Your task to perform on an android device: Go to eBay Image 0: 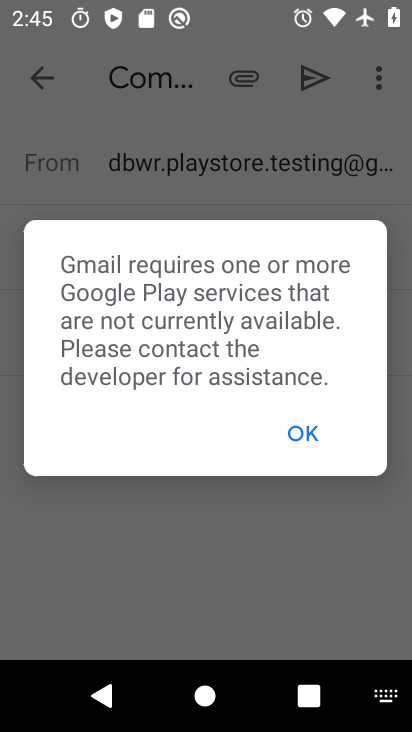
Step 0: press home button
Your task to perform on an android device: Go to eBay Image 1: 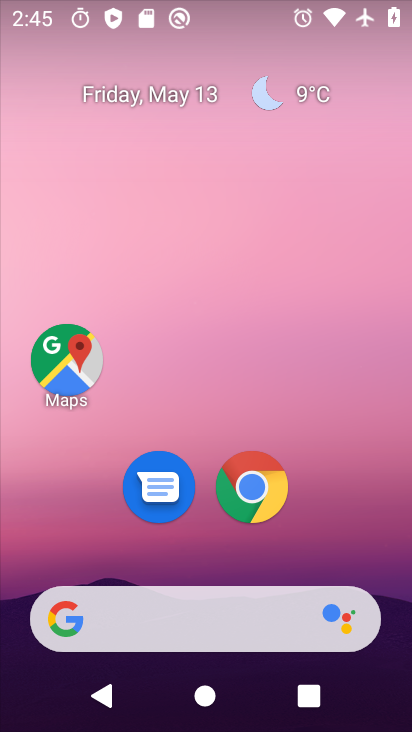
Step 1: drag from (196, 540) to (184, 140)
Your task to perform on an android device: Go to eBay Image 2: 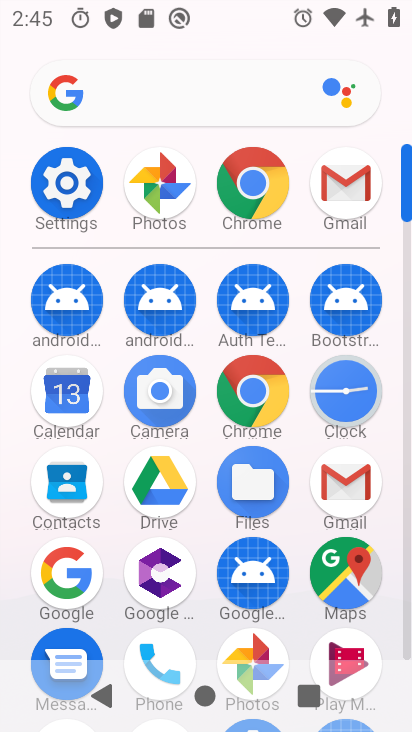
Step 2: click (54, 579)
Your task to perform on an android device: Go to eBay Image 3: 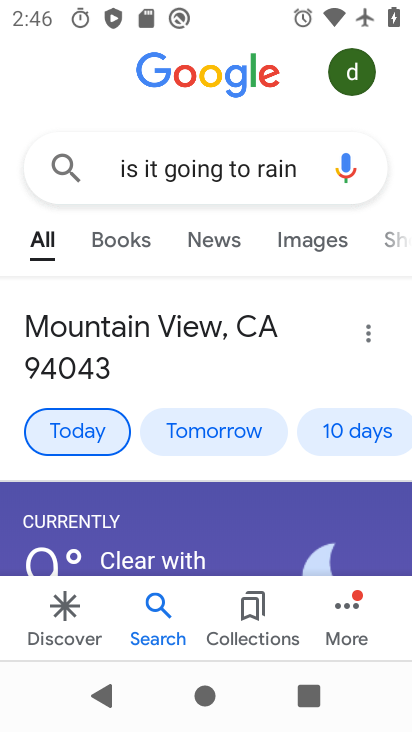
Step 3: click (248, 160)
Your task to perform on an android device: Go to eBay Image 4: 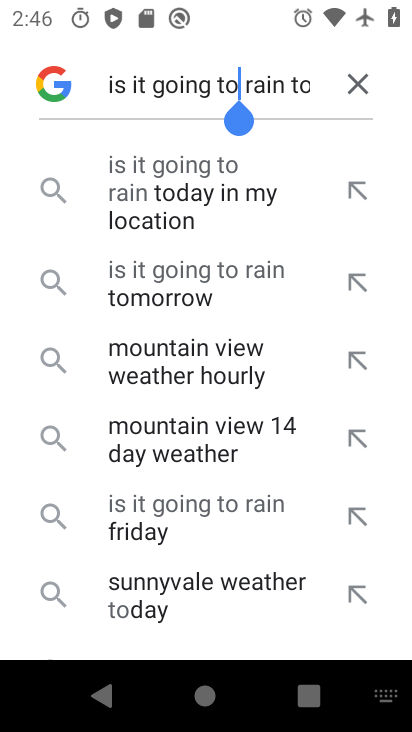
Step 4: click (350, 86)
Your task to perform on an android device: Go to eBay Image 5: 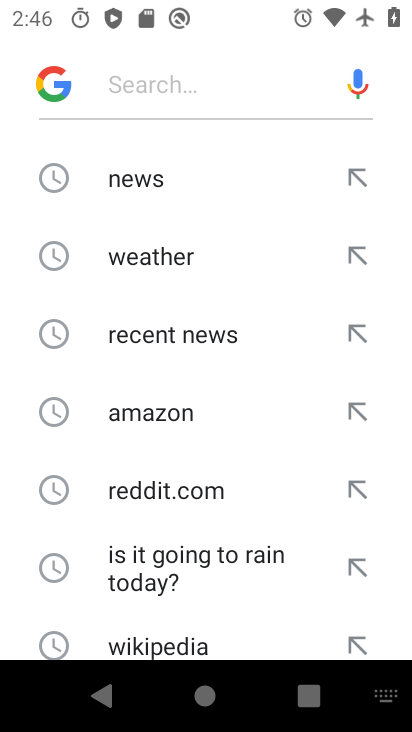
Step 5: drag from (194, 540) to (198, 226)
Your task to perform on an android device: Go to eBay Image 6: 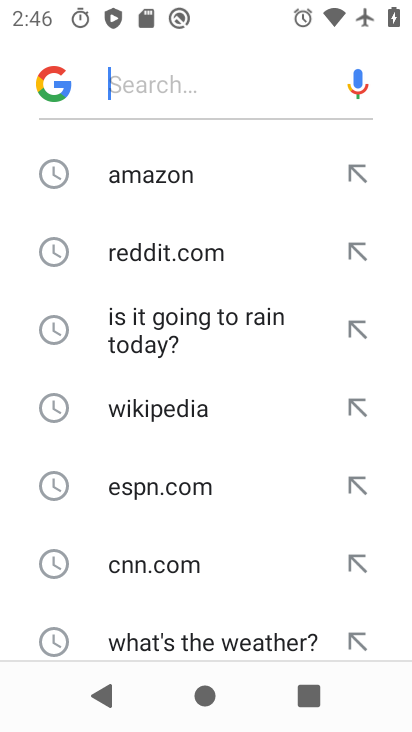
Step 6: drag from (227, 612) to (228, 249)
Your task to perform on an android device: Go to eBay Image 7: 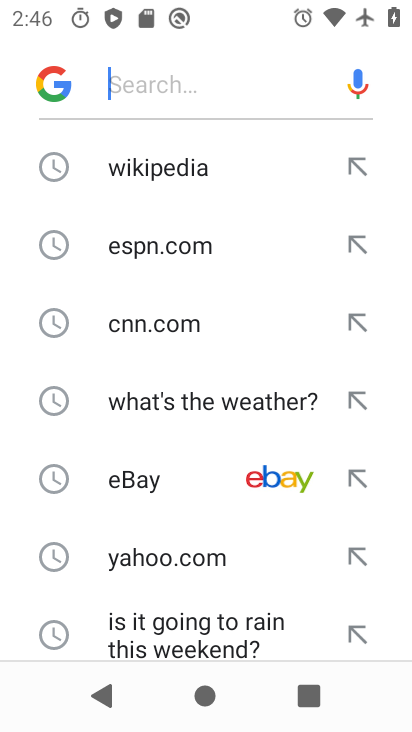
Step 7: click (148, 482)
Your task to perform on an android device: Go to eBay Image 8: 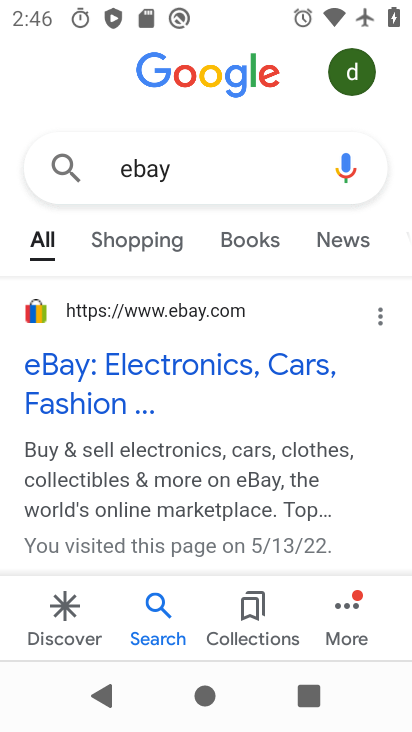
Step 8: task complete